Your task to perform on an android device: manage bookmarks in the chrome app Image 0: 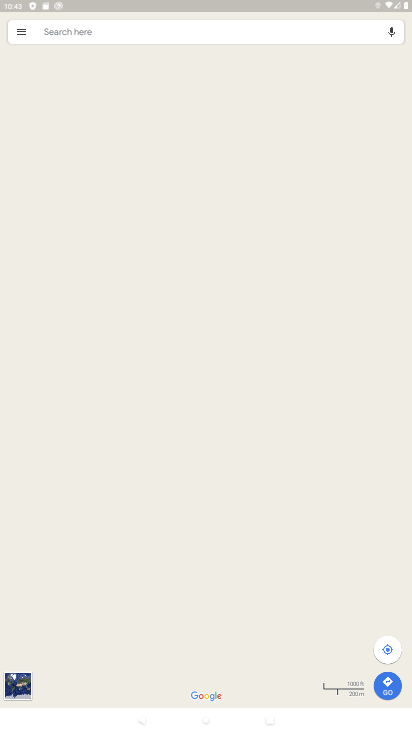
Step 0: press home button
Your task to perform on an android device: manage bookmarks in the chrome app Image 1: 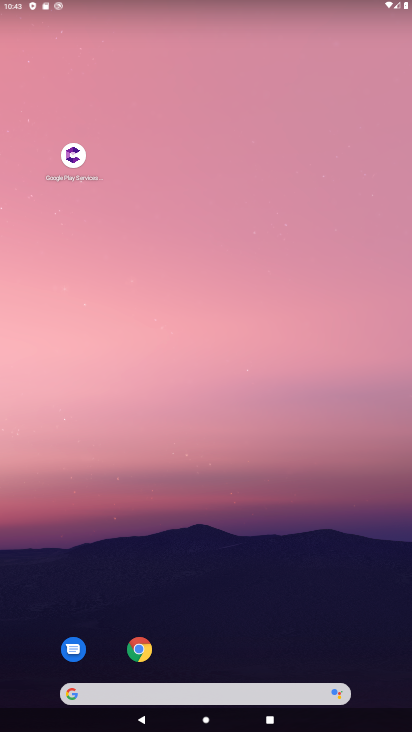
Step 1: click (144, 644)
Your task to perform on an android device: manage bookmarks in the chrome app Image 2: 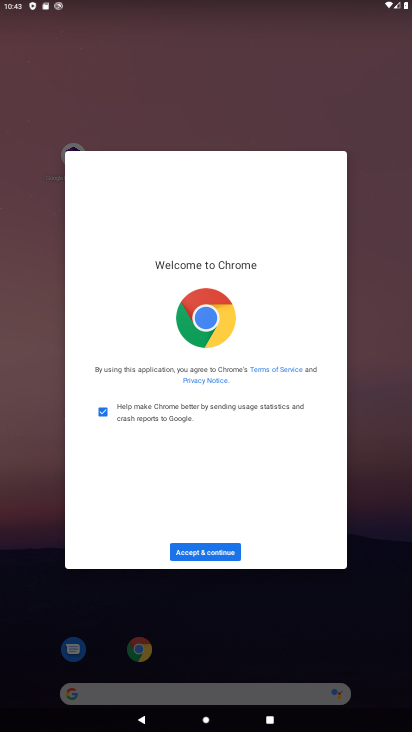
Step 2: click (221, 550)
Your task to perform on an android device: manage bookmarks in the chrome app Image 3: 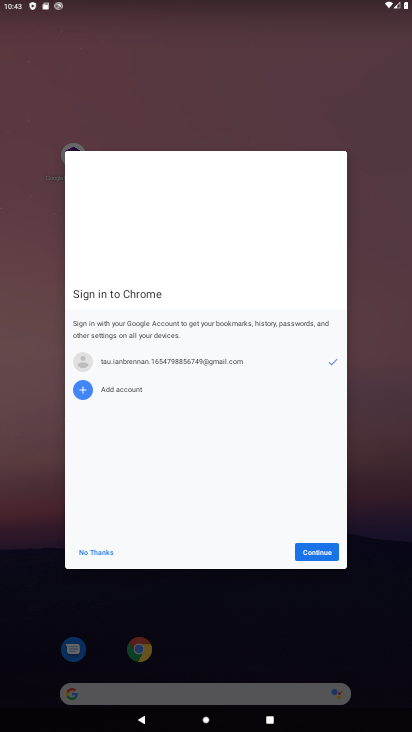
Step 3: click (313, 563)
Your task to perform on an android device: manage bookmarks in the chrome app Image 4: 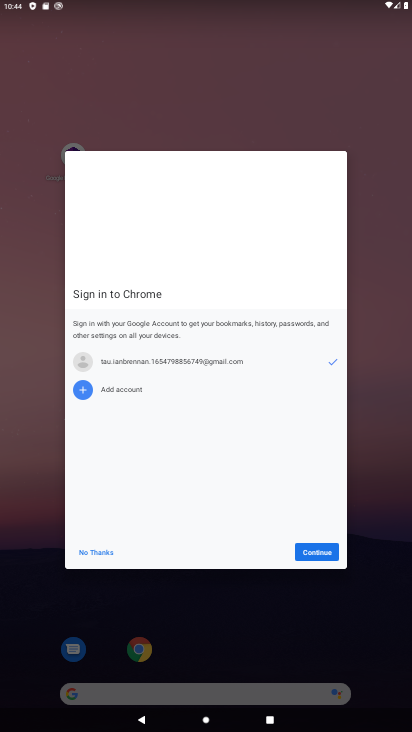
Step 4: click (314, 553)
Your task to perform on an android device: manage bookmarks in the chrome app Image 5: 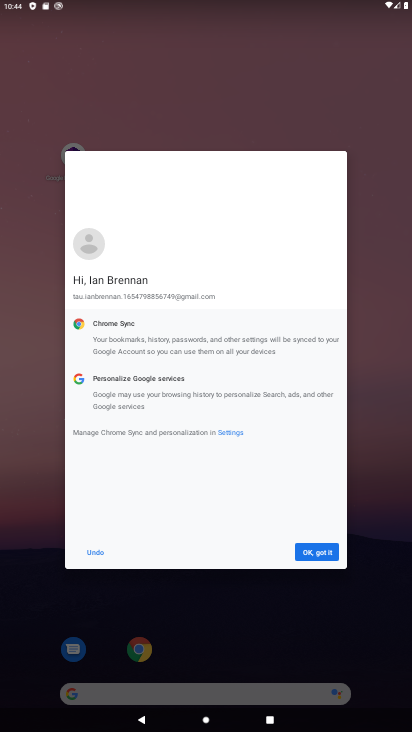
Step 5: click (314, 553)
Your task to perform on an android device: manage bookmarks in the chrome app Image 6: 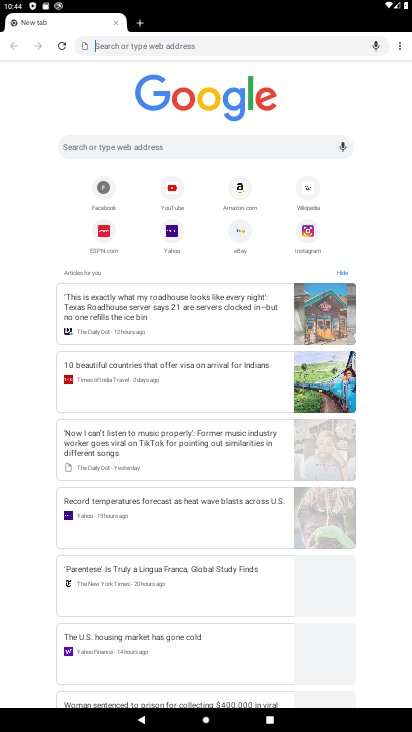
Step 6: click (397, 50)
Your task to perform on an android device: manage bookmarks in the chrome app Image 7: 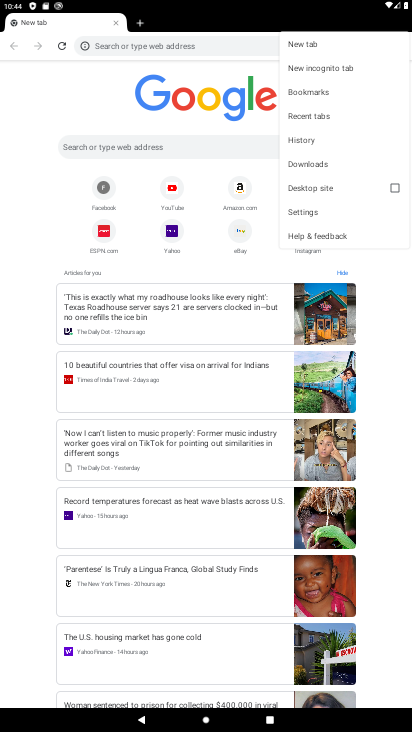
Step 7: click (311, 95)
Your task to perform on an android device: manage bookmarks in the chrome app Image 8: 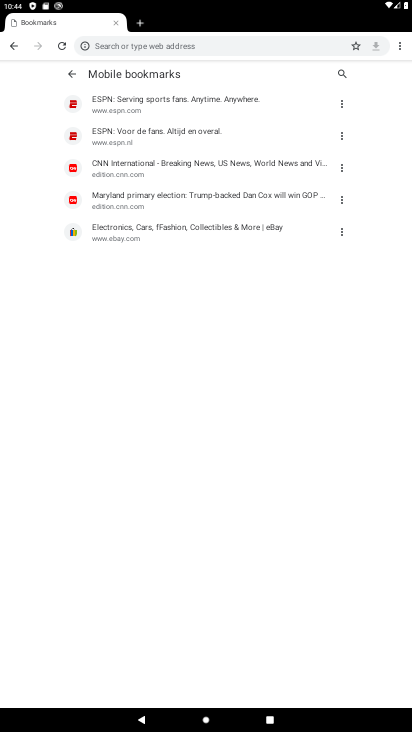
Step 8: click (198, 108)
Your task to perform on an android device: manage bookmarks in the chrome app Image 9: 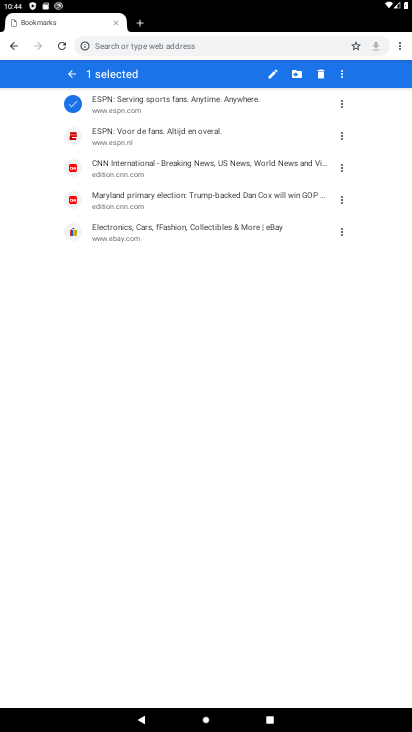
Step 9: click (296, 70)
Your task to perform on an android device: manage bookmarks in the chrome app Image 10: 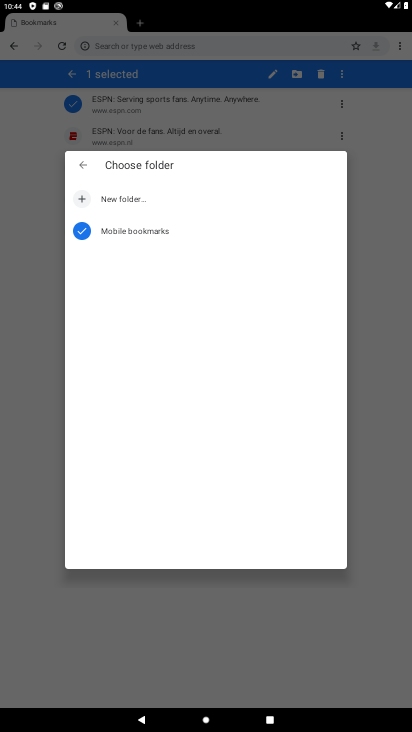
Step 10: click (222, 224)
Your task to perform on an android device: manage bookmarks in the chrome app Image 11: 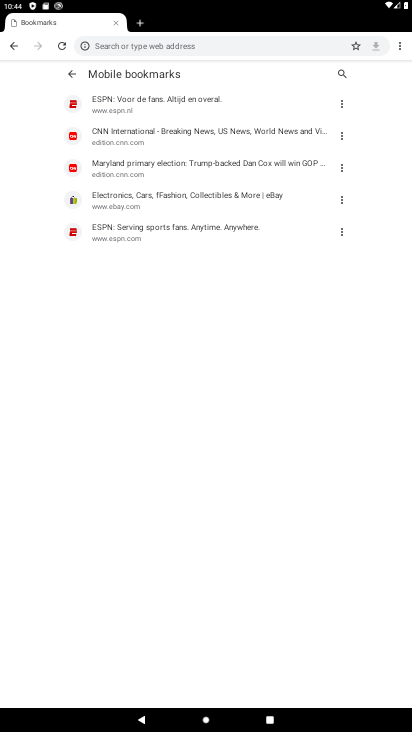
Step 11: task complete